Your task to perform on an android device: stop showing notifications on the lock screen Image 0: 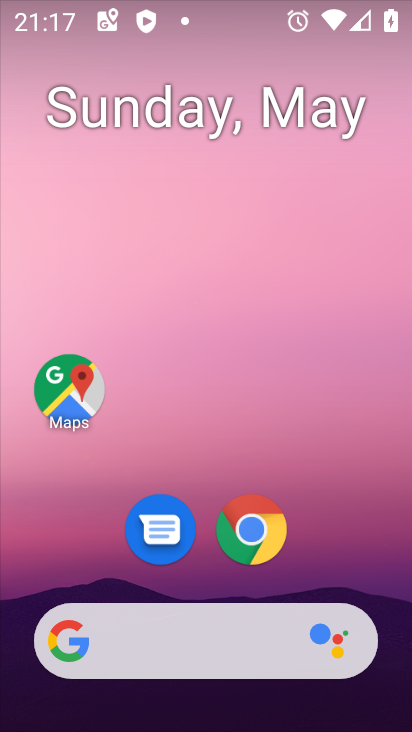
Step 0: drag from (334, 587) to (330, 0)
Your task to perform on an android device: stop showing notifications on the lock screen Image 1: 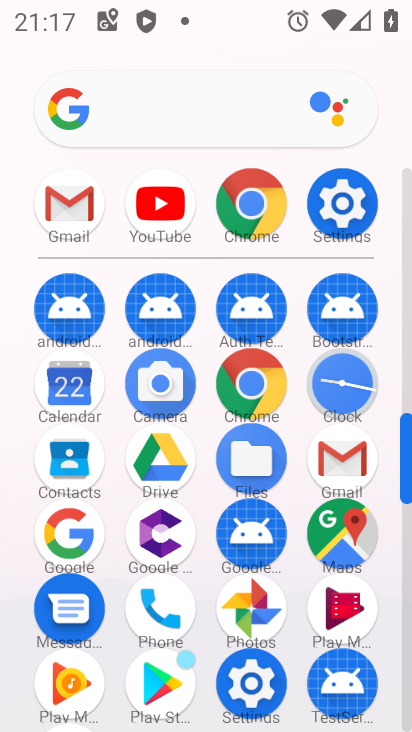
Step 1: click (338, 207)
Your task to perform on an android device: stop showing notifications on the lock screen Image 2: 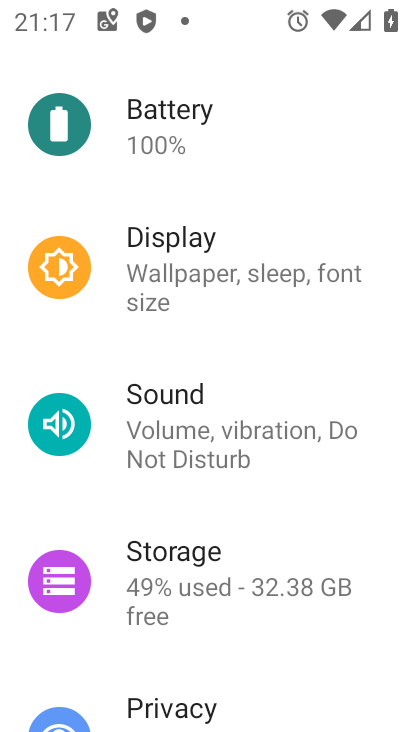
Step 2: drag from (319, 177) to (297, 610)
Your task to perform on an android device: stop showing notifications on the lock screen Image 3: 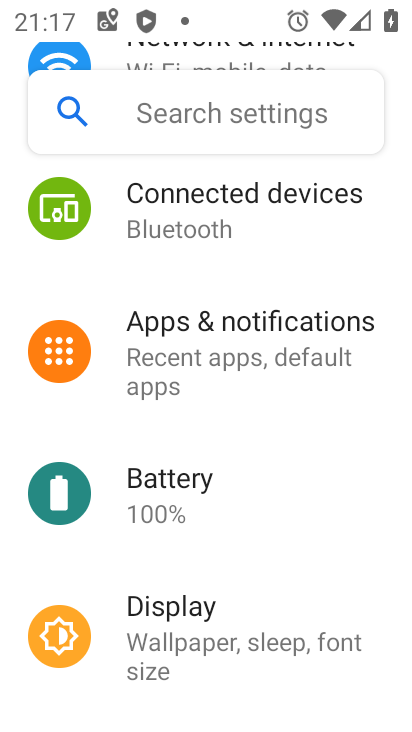
Step 3: click (221, 340)
Your task to perform on an android device: stop showing notifications on the lock screen Image 4: 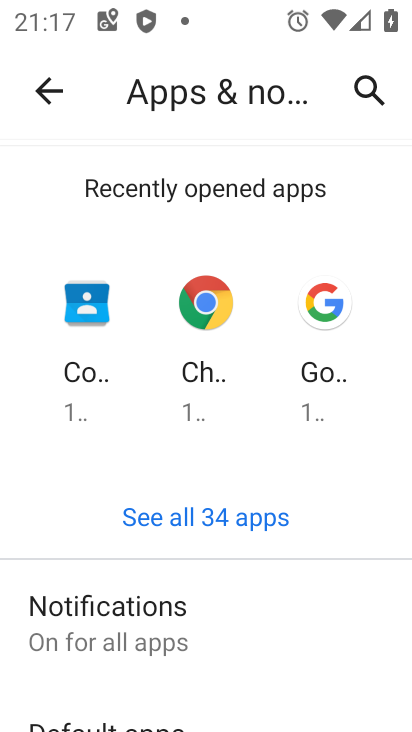
Step 4: drag from (184, 547) to (178, 164)
Your task to perform on an android device: stop showing notifications on the lock screen Image 5: 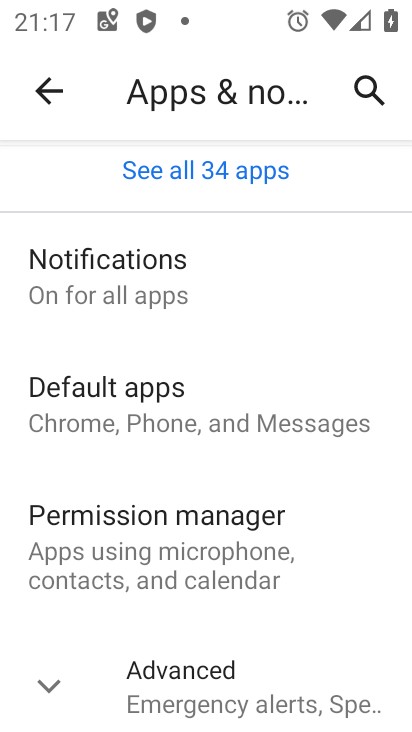
Step 5: click (90, 301)
Your task to perform on an android device: stop showing notifications on the lock screen Image 6: 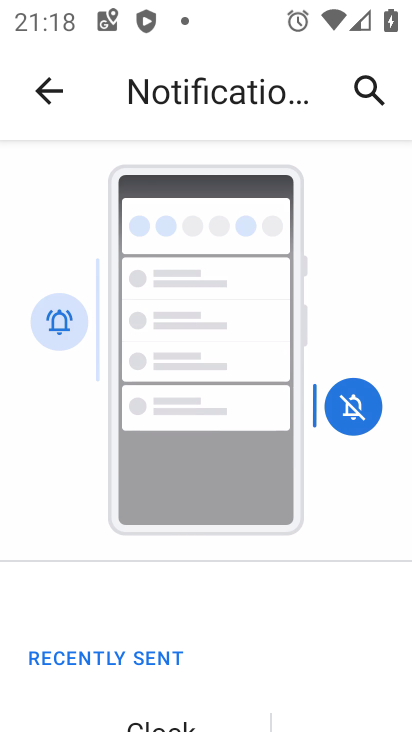
Step 6: drag from (192, 597) to (175, 124)
Your task to perform on an android device: stop showing notifications on the lock screen Image 7: 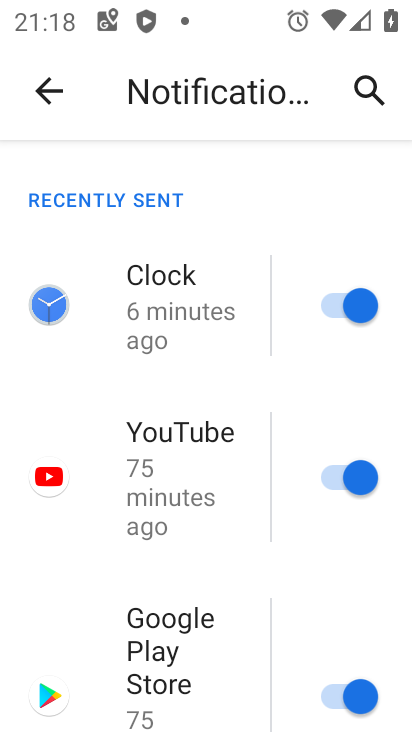
Step 7: drag from (206, 557) to (178, 117)
Your task to perform on an android device: stop showing notifications on the lock screen Image 8: 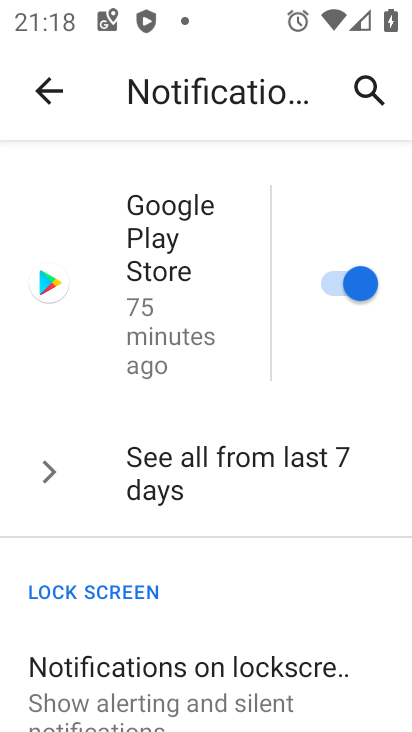
Step 8: drag from (109, 602) to (107, 194)
Your task to perform on an android device: stop showing notifications on the lock screen Image 9: 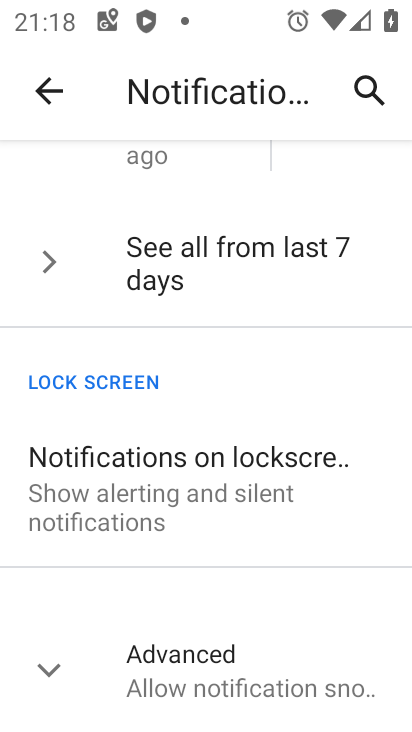
Step 9: click (45, 671)
Your task to perform on an android device: stop showing notifications on the lock screen Image 10: 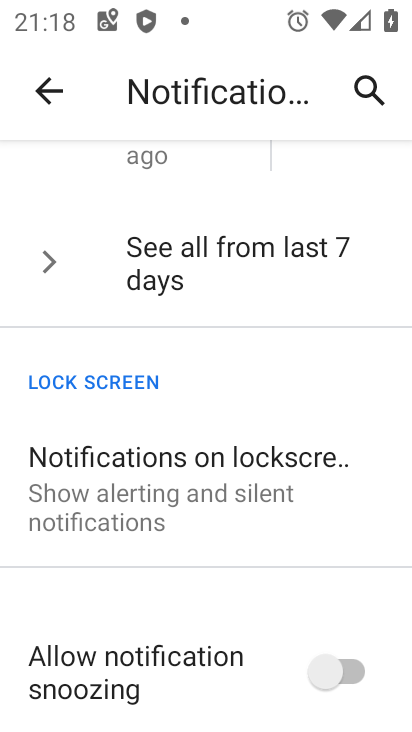
Step 10: click (78, 483)
Your task to perform on an android device: stop showing notifications on the lock screen Image 11: 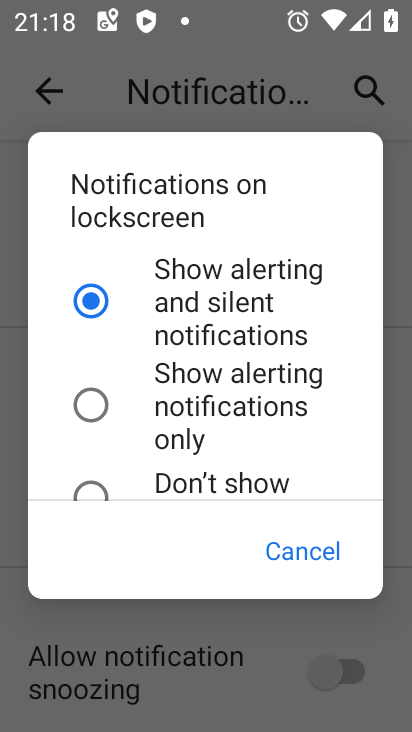
Step 11: click (92, 487)
Your task to perform on an android device: stop showing notifications on the lock screen Image 12: 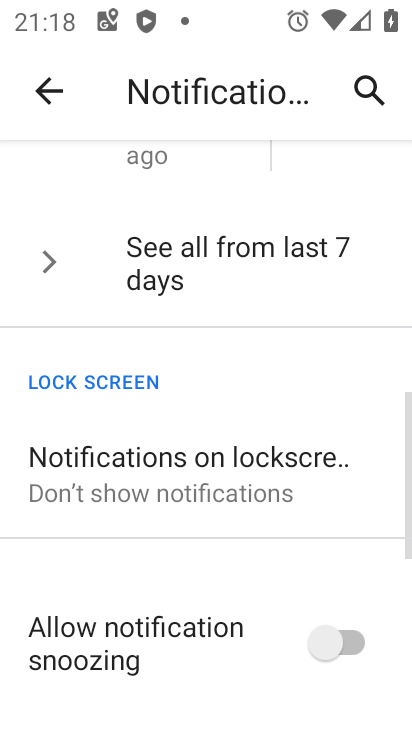
Step 12: task complete